Your task to perform on an android device: turn on location history Image 0: 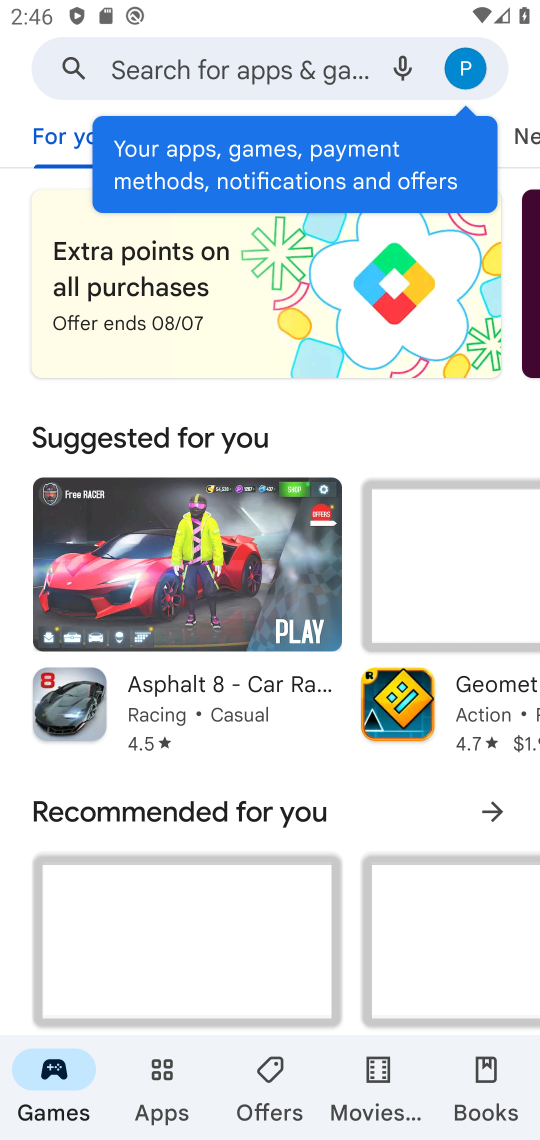
Step 0: press home button
Your task to perform on an android device: turn on location history Image 1: 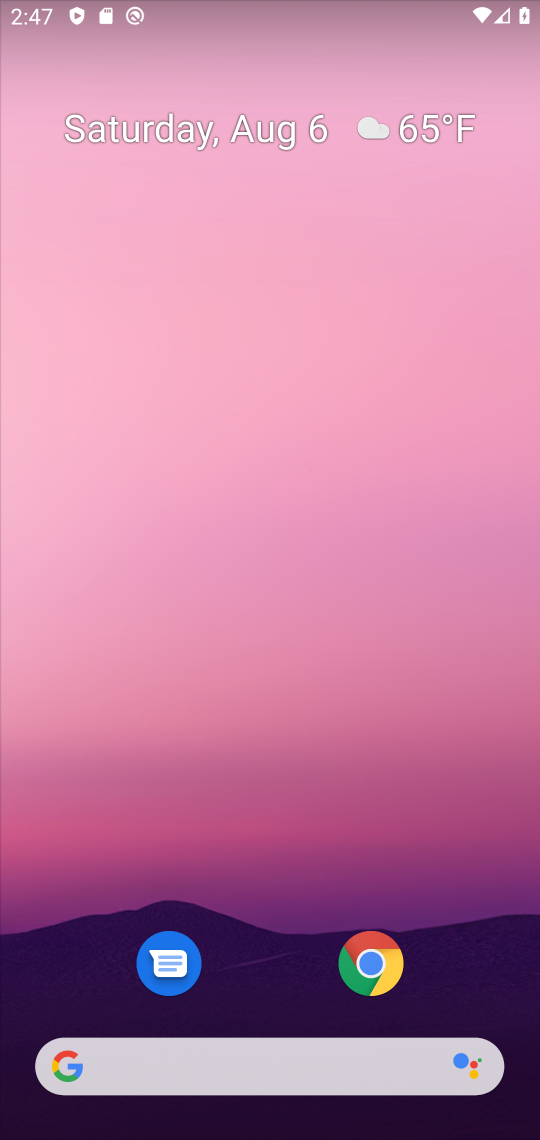
Step 1: drag from (469, 963) to (540, 799)
Your task to perform on an android device: turn on location history Image 2: 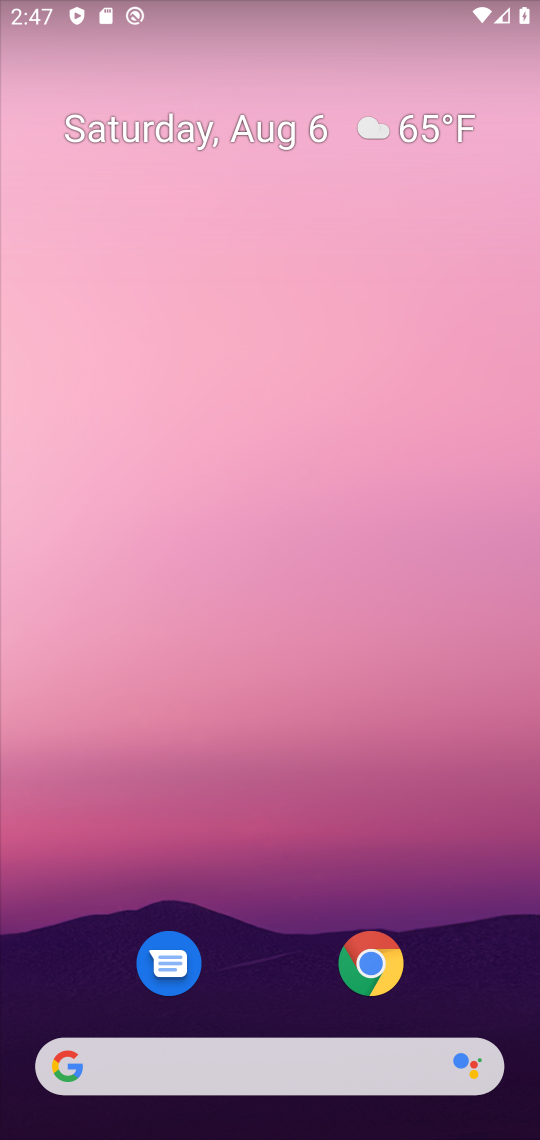
Step 2: drag from (490, 1009) to (308, 292)
Your task to perform on an android device: turn on location history Image 3: 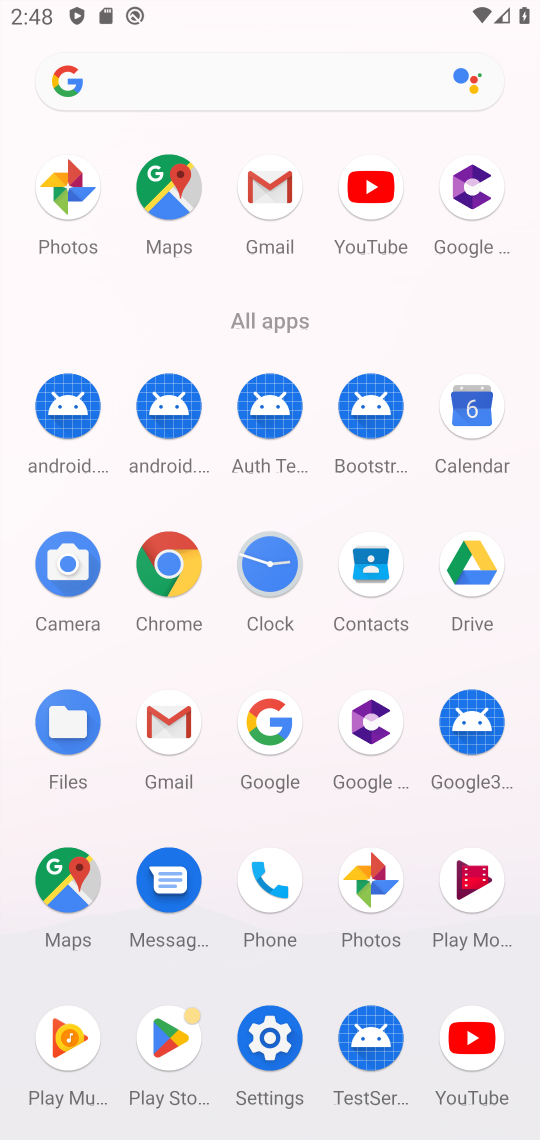
Step 3: click (269, 1055)
Your task to perform on an android device: turn on location history Image 4: 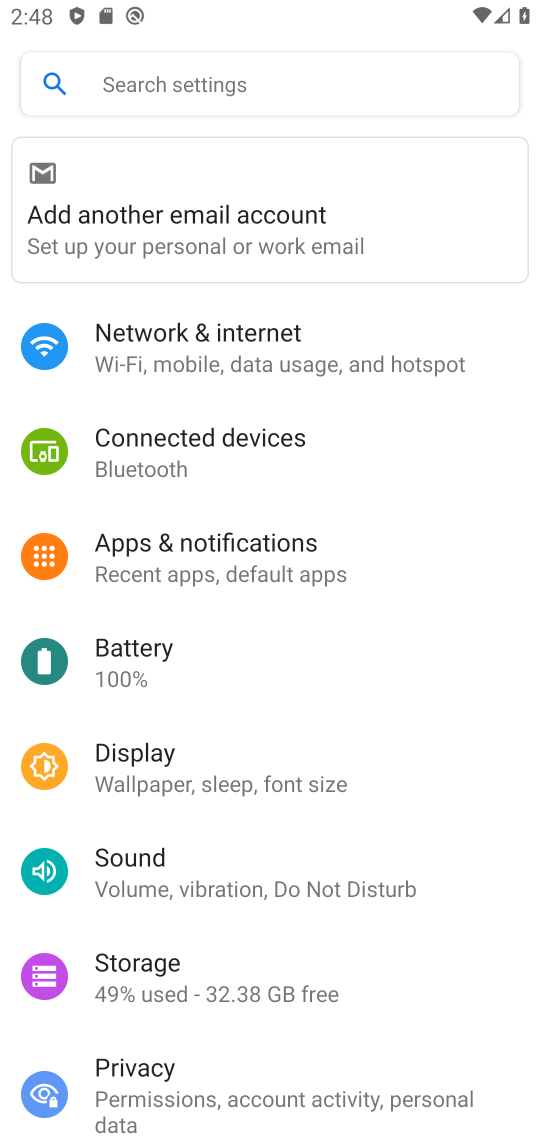
Step 4: drag from (301, 943) to (227, 621)
Your task to perform on an android device: turn on location history Image 5: 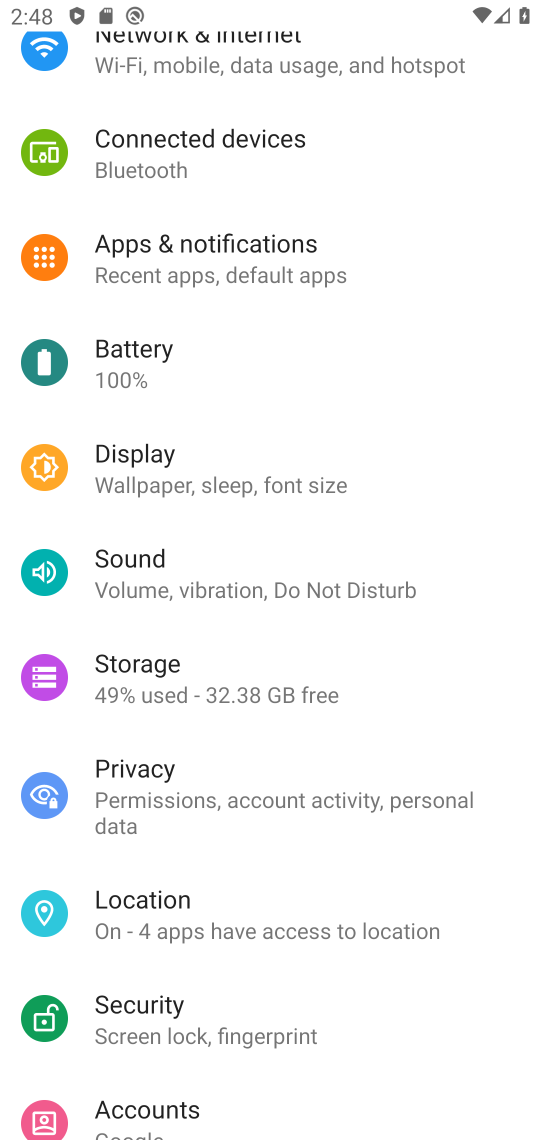
Step 5: click (209, 920)
Your task to perform on an android device: turn on location history Image 6: 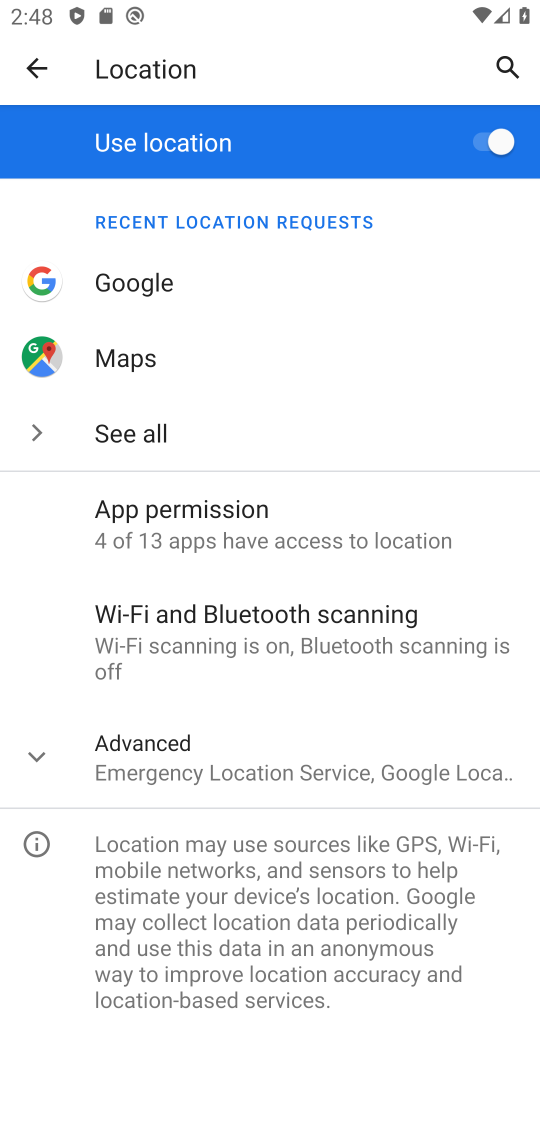
Step 6: click (239, 749)
Your task to perform on an android device: turn on location history Image 7: 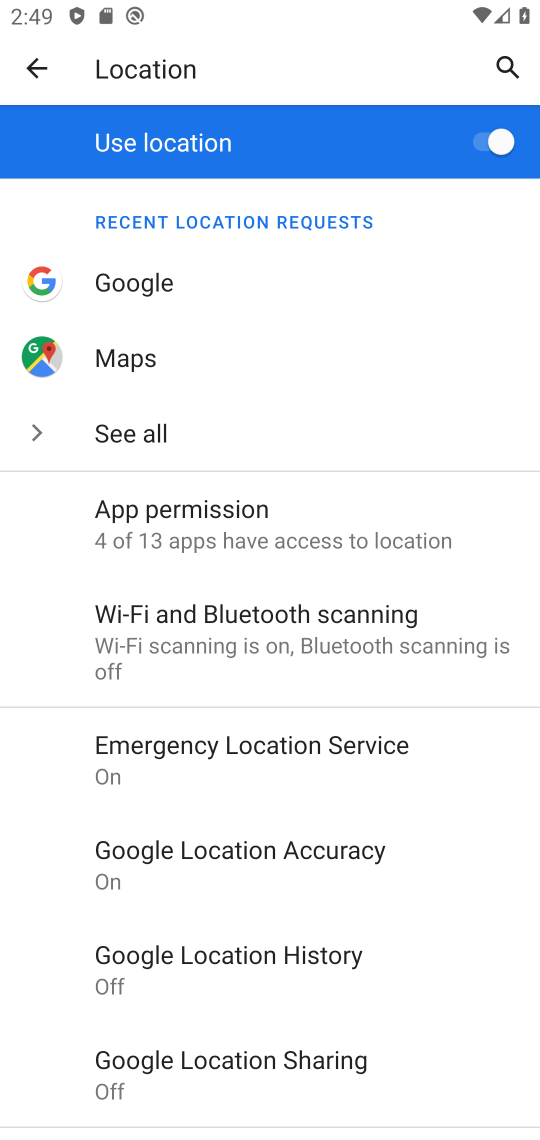
Step 7: click (327, 937)
Your task to perform on an android device: turn on location history Image 8: 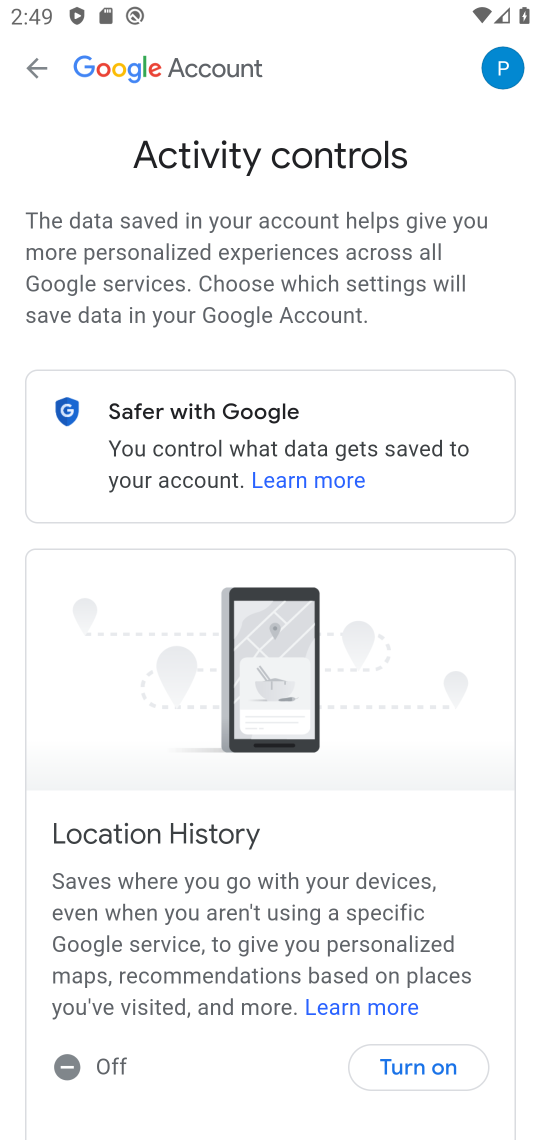
Step 8: click (428, 1063)
Your task to perform on an android device: turn on location history Image 9: 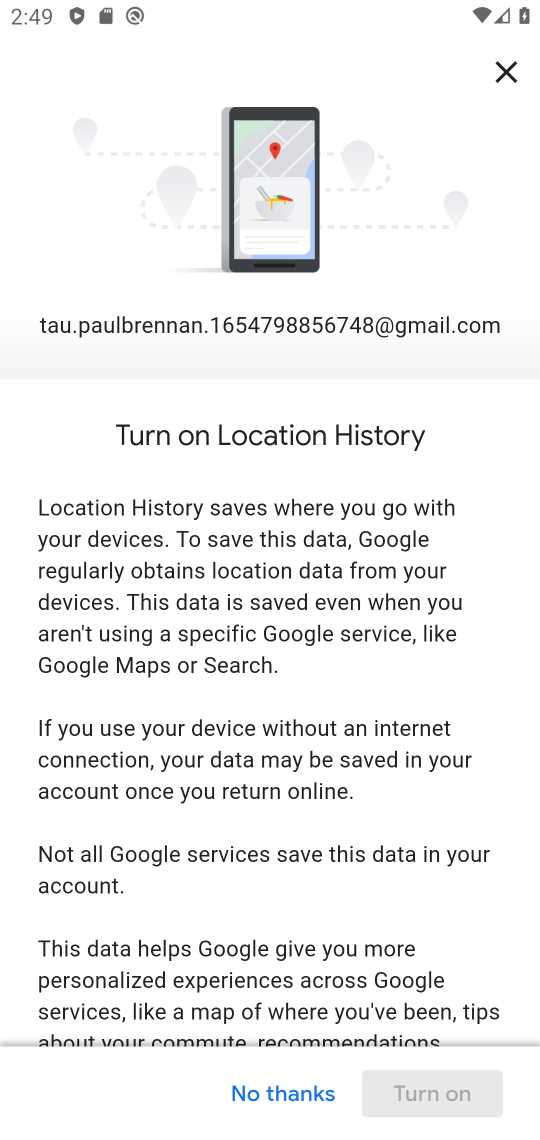
Step 9: drag from (458, 1023) to (358, 630)
Your task to perform on an android device: turn on location history Image 10: 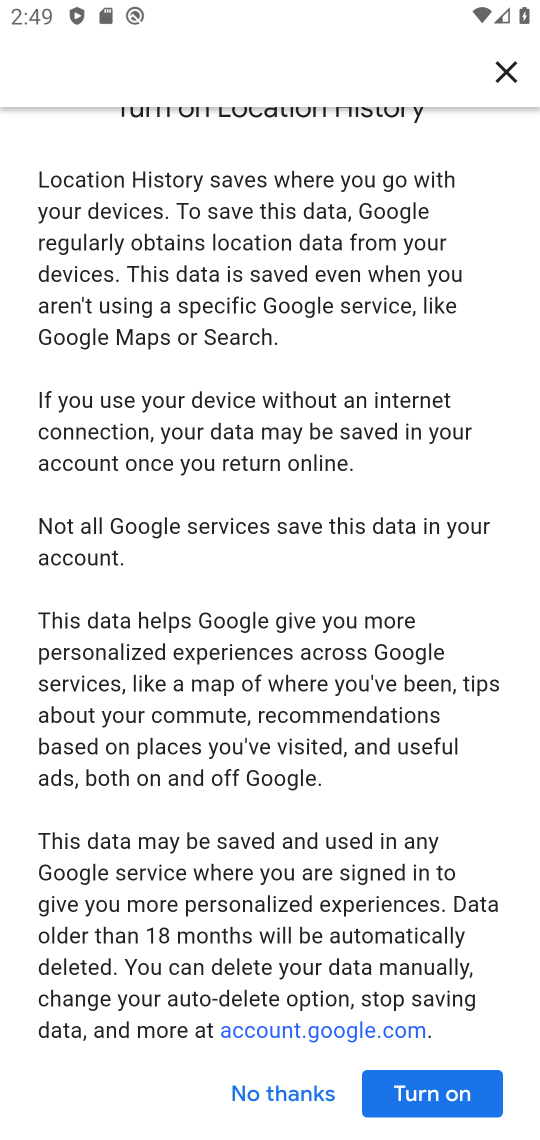
Step 10: drag from (453, 1010) to (371, 666)
Your task to perform on an android device: turn on location history Image 11: 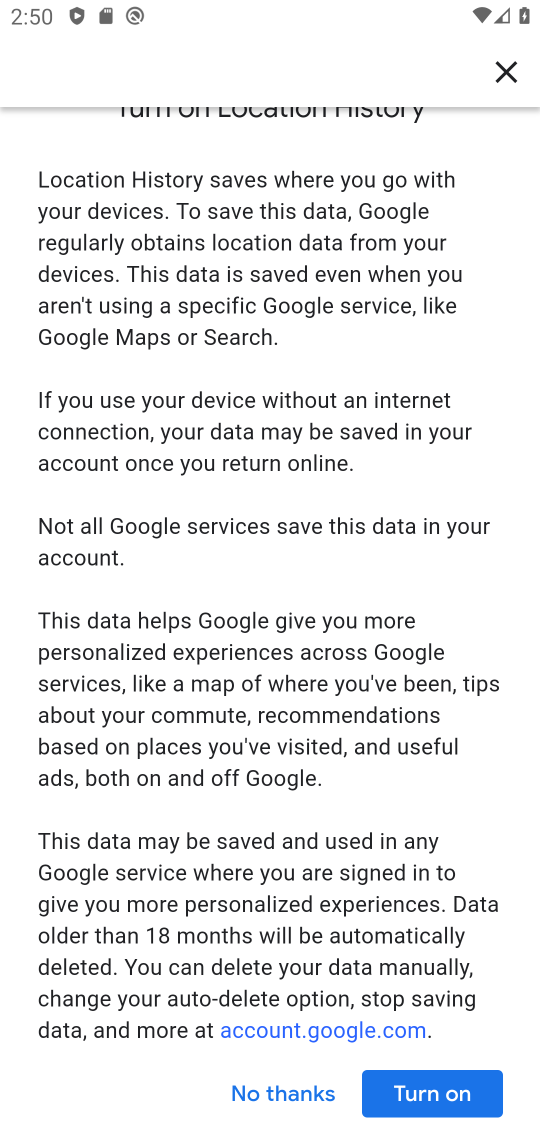
Step 11: click (438, 1082)
Your task to perform on an android device: turn on location history Image 12: 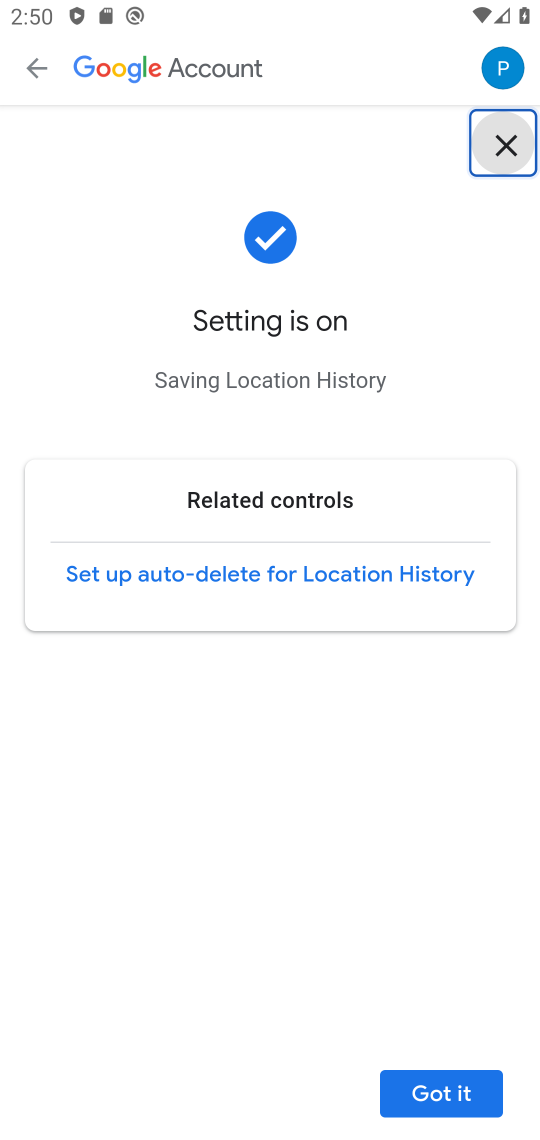
Step 12: click (425, 1110)
Your task to perform on an android device: turn on location history Image 13: 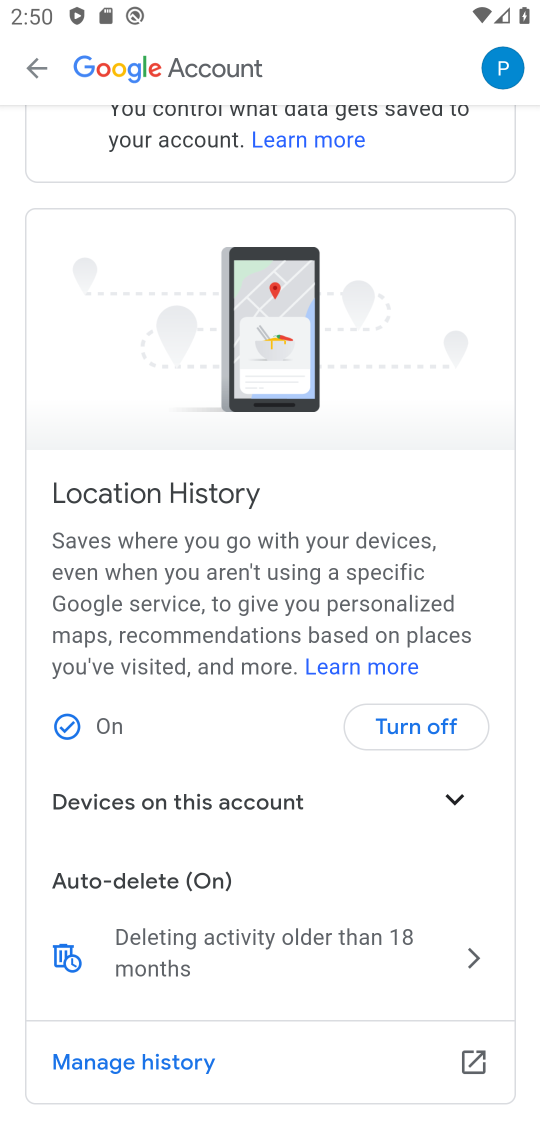
Step 13: task complete